Your task to perform on an android device: Empty the shopping cart on target. Search for asus rog on target, select the first entry, and add it to the cart. Image 0: 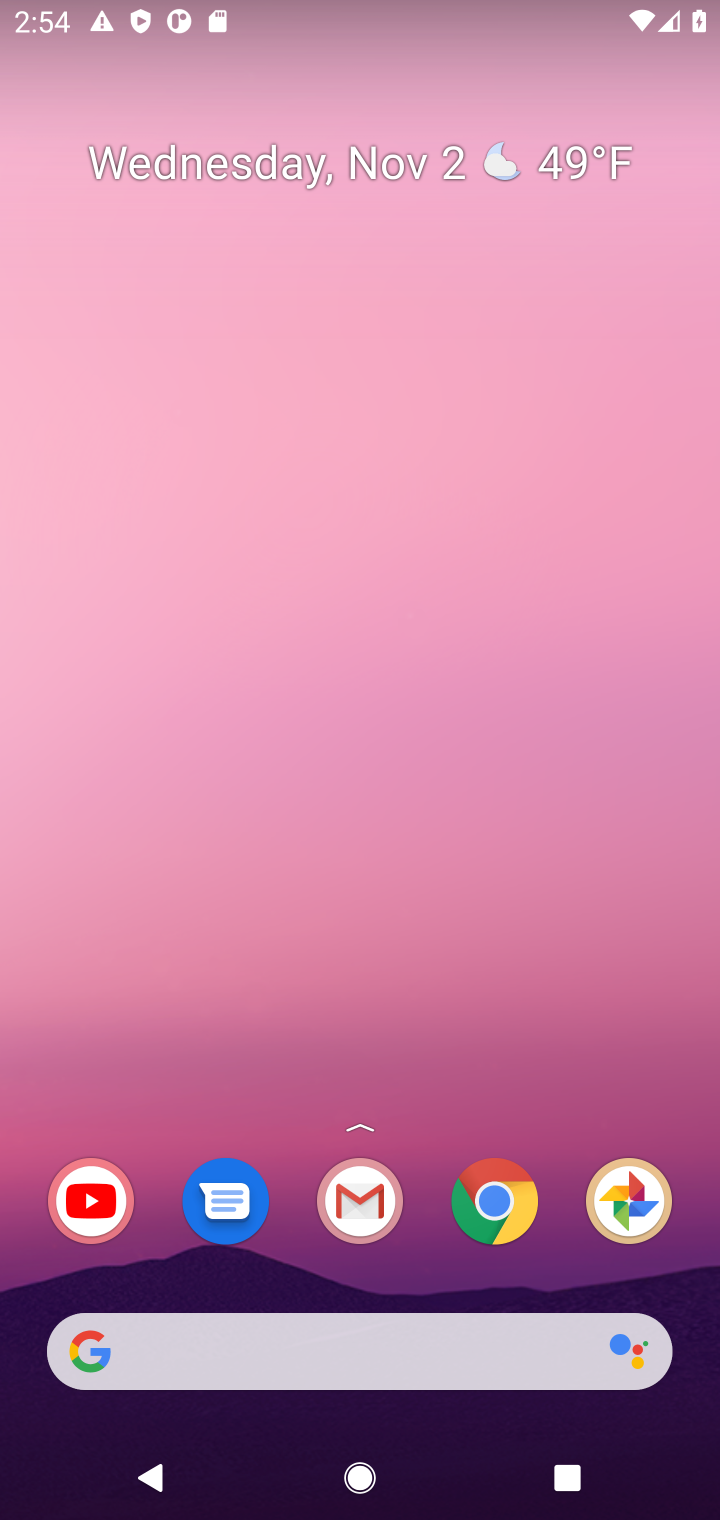
Step 0: press home button
Your task to perform on an android device: Empty the shopping cart on target. Search for asus rog on target, select the first entry, and add it to the cart. Image 1: 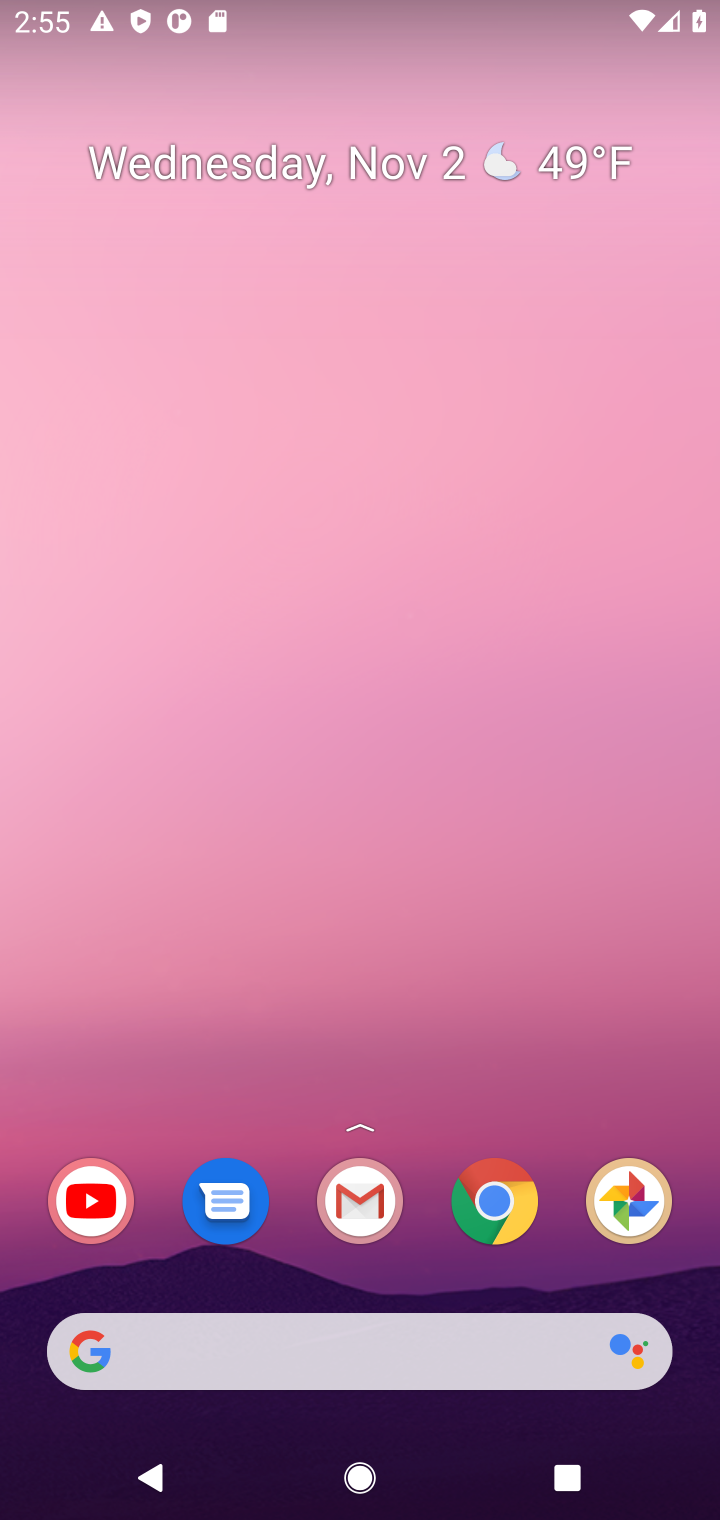
Step 1: click (488, 1207)
Your task to perform on an android device: Empty the shopping cart on target. Search for asus rog on target, select the first entry, and add it to the cart. Image 2: 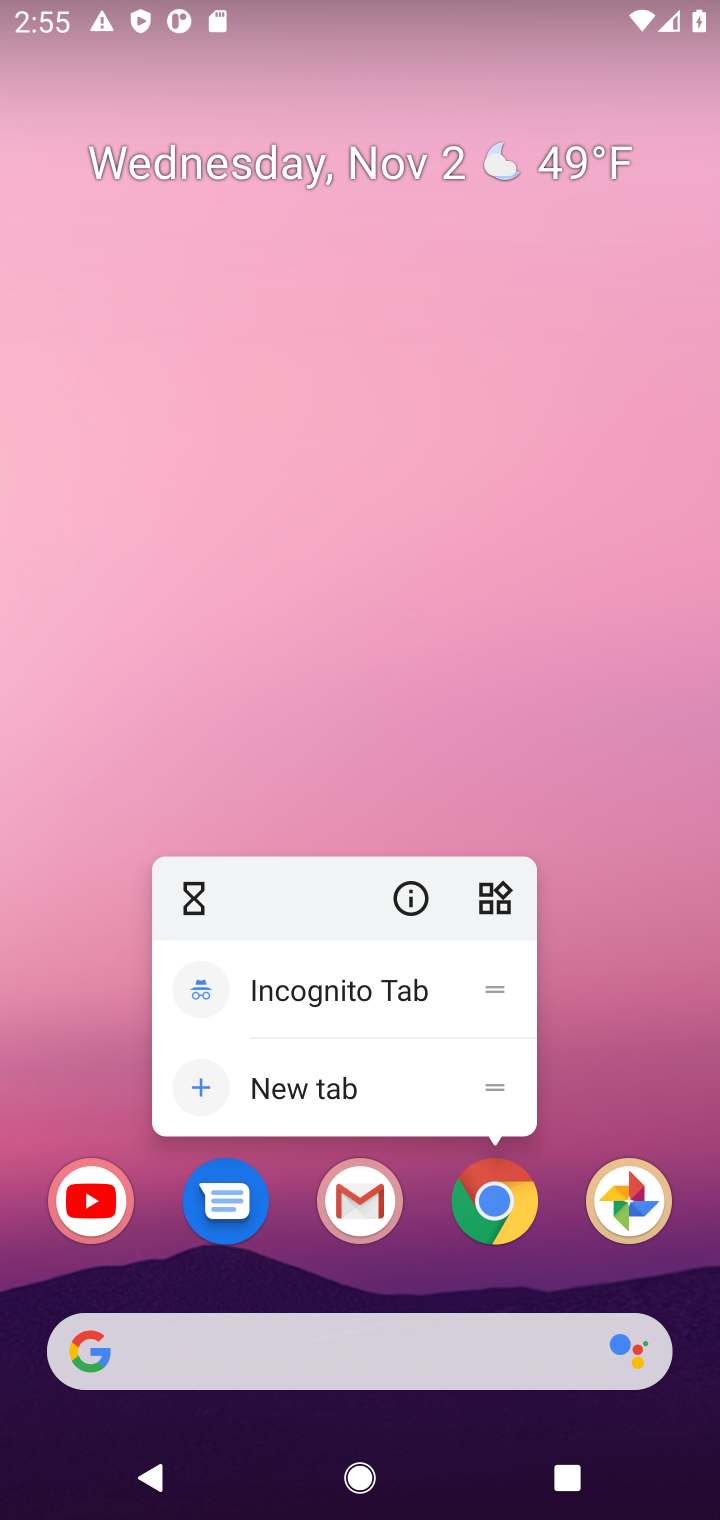
Step 2: click (490, 1200)
Your task to perform on an android device: Empty the shopping cart on target. Search for asus rog on target, select the first entry, and add it to the cart. Image 3: 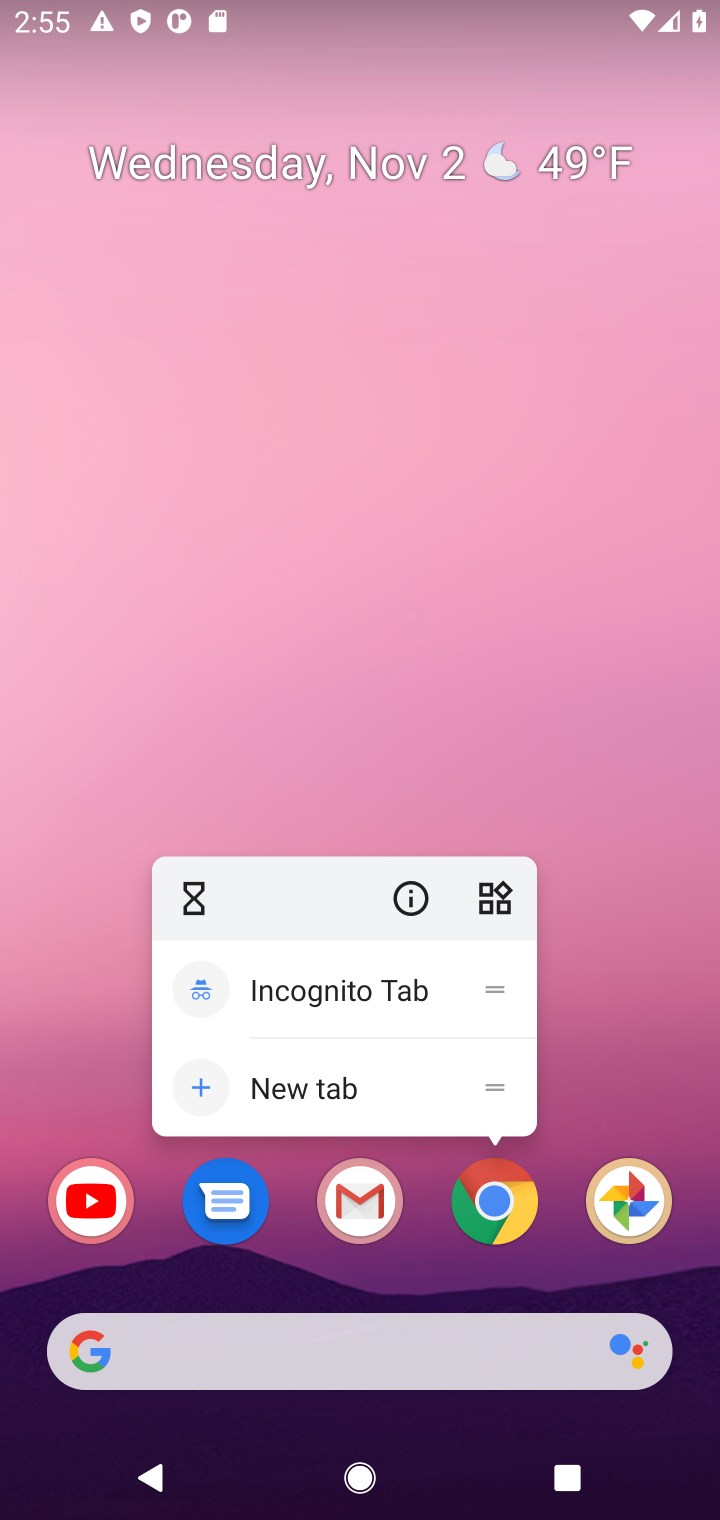
Step 3: click (496, 1212)
Your task to perform on an android device: Empty the shopping cart on target. Search for asus rog on target, select the first entry, and add it to the cart. Image 4: 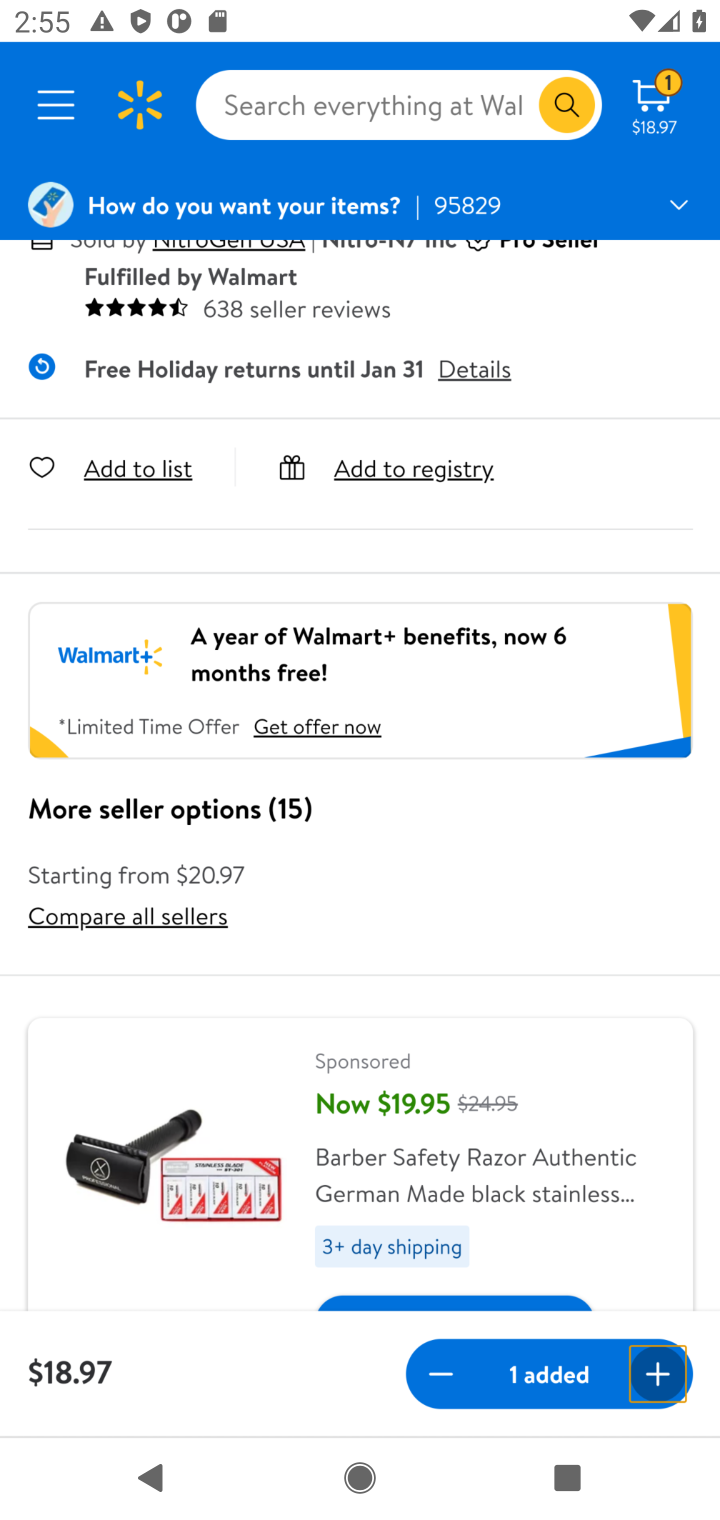
Step 4: click (498, 1213)
Your task to perform on an android device: Empty the shopping cart on target. Search for asus rog on target, select the first entry, and add it to the cart. Image 5: 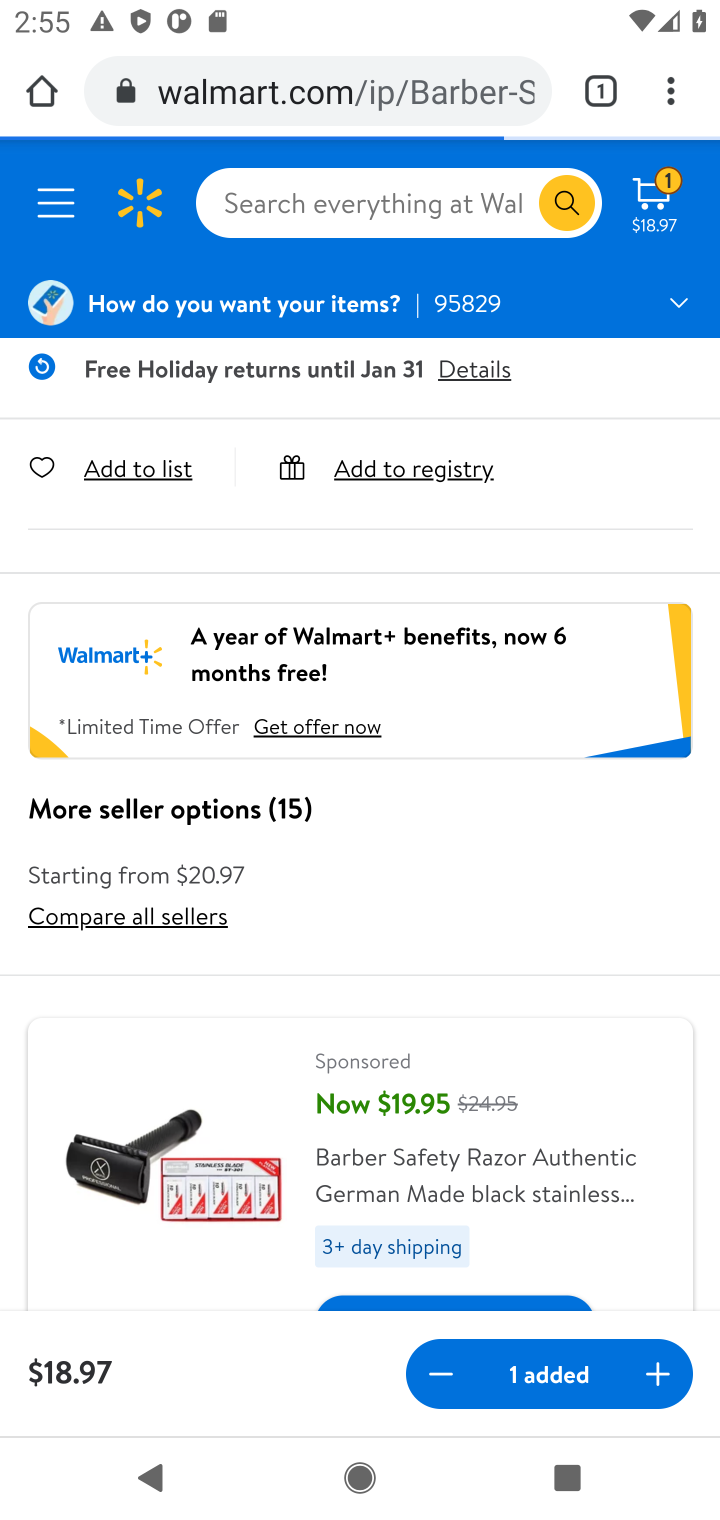
Step 5: click (365, 105)
Your task to perform on an android device: Empty the shopping cart on target. Search for asus rog on target, select the first entry, and add it to the cart. Image 6: 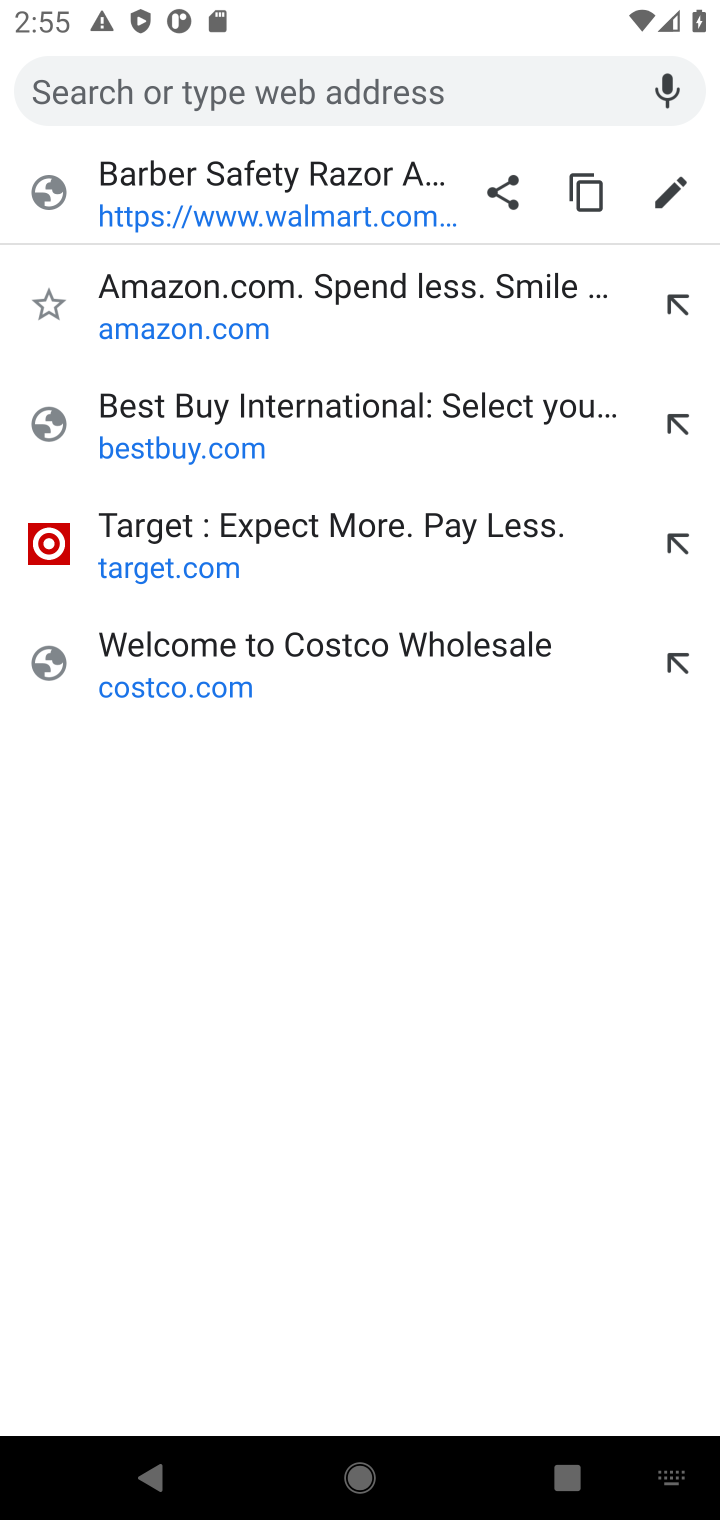
Step 6: type "target"
Your task to perform on an android device: Empty the shopping cart on target. Search for asus rog on target, select the first entry, and add it to the cart. Image 7: 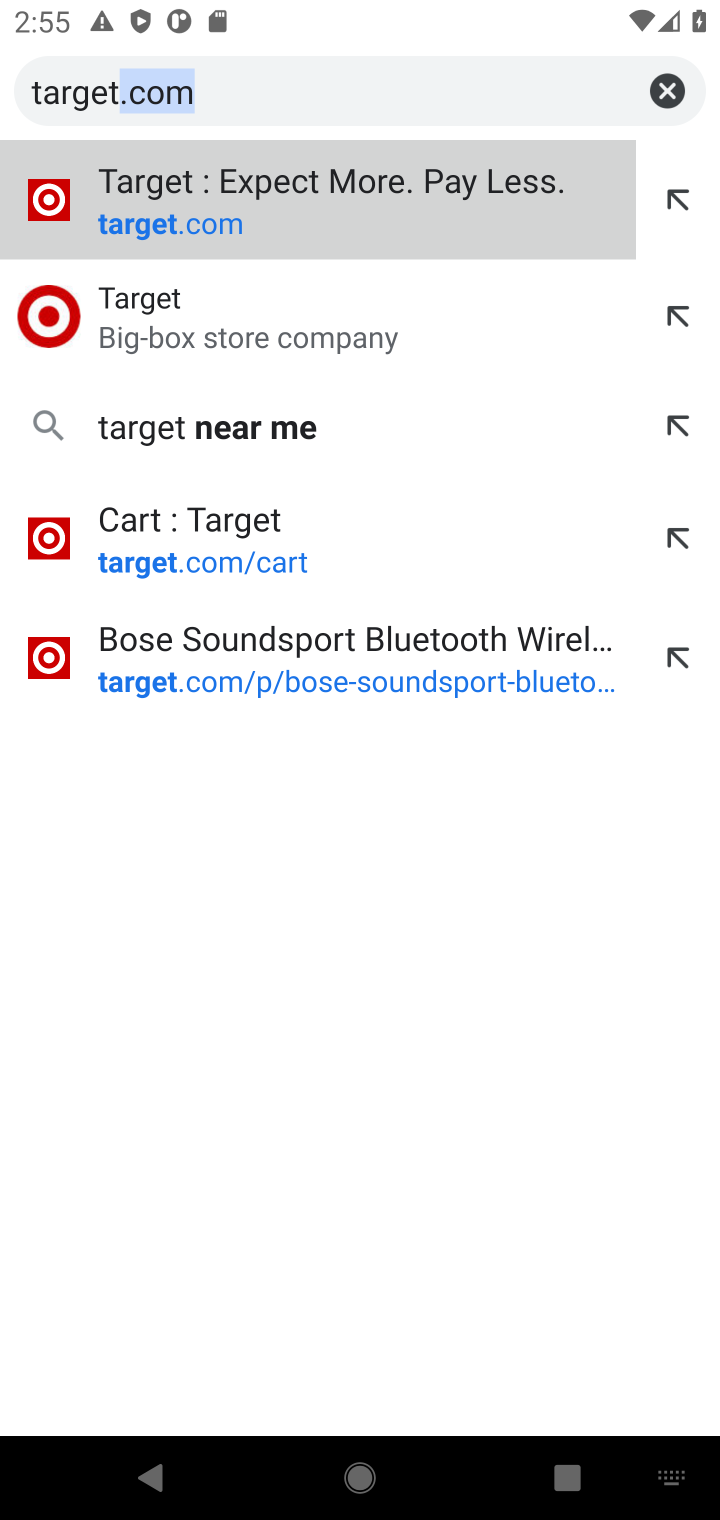
Step 7: press enter
Your task to perform on an android device: Empty the shopping cart on target. Search for asus rog on target, select the first entry, and add it to the cart. Image 8: 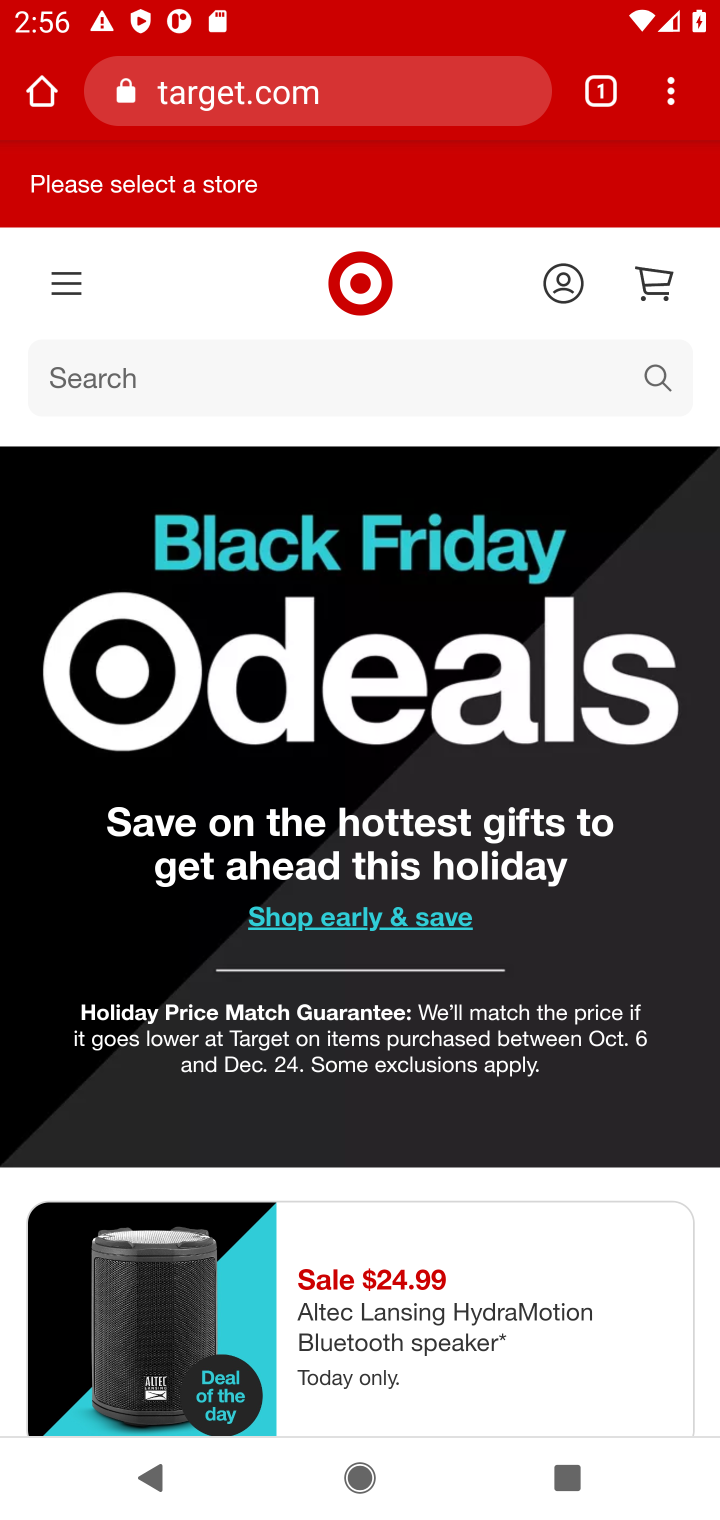
Step 8: click (309, 384)
Your task to perform on an android device: Empty the shopping cart on target. Search for asus rog on target, select the first entry, and add it to the cart. Image 9: 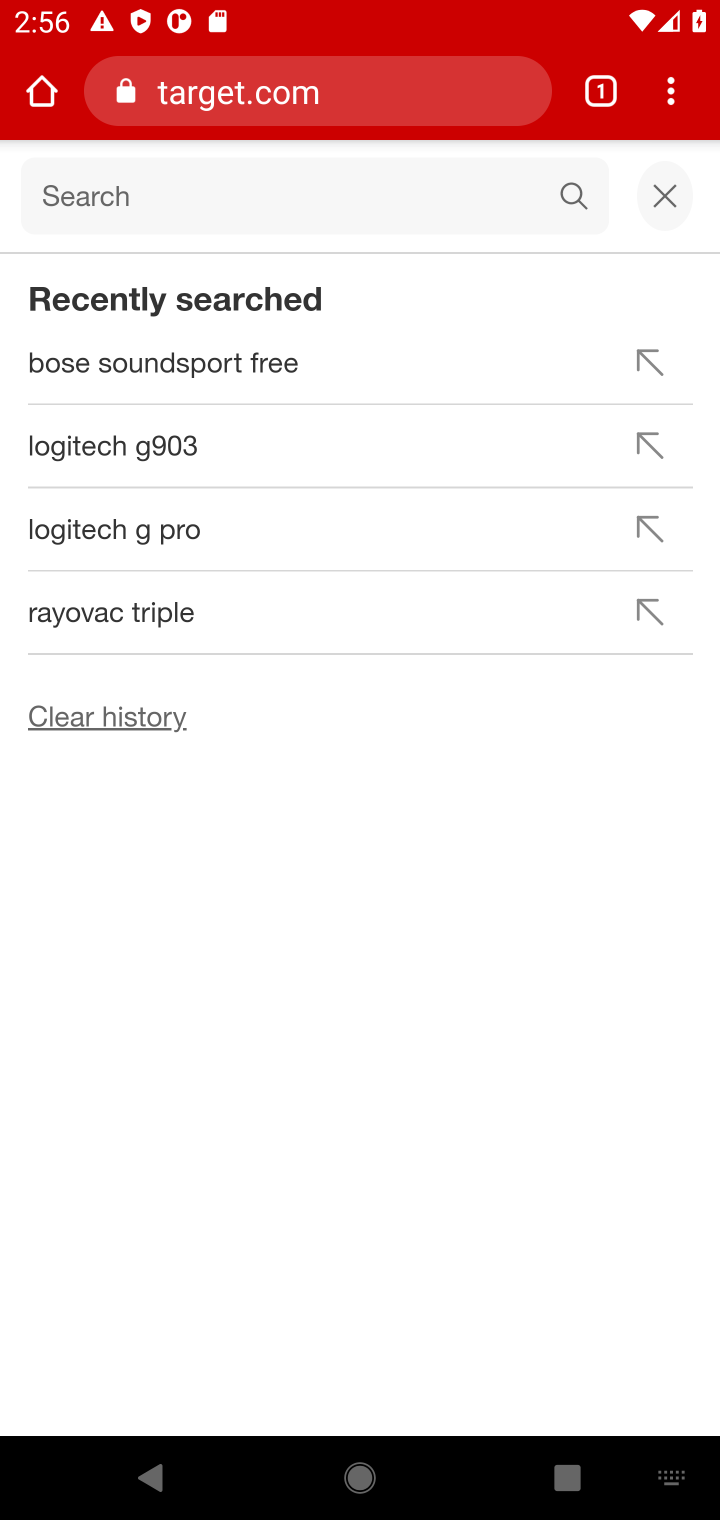
Step 9: type "asus rog"
Your task to perform on an android device: Empty the shopping cart on target. Search for asus rog on target, select the first entry, and add it to the cart. Image 10: 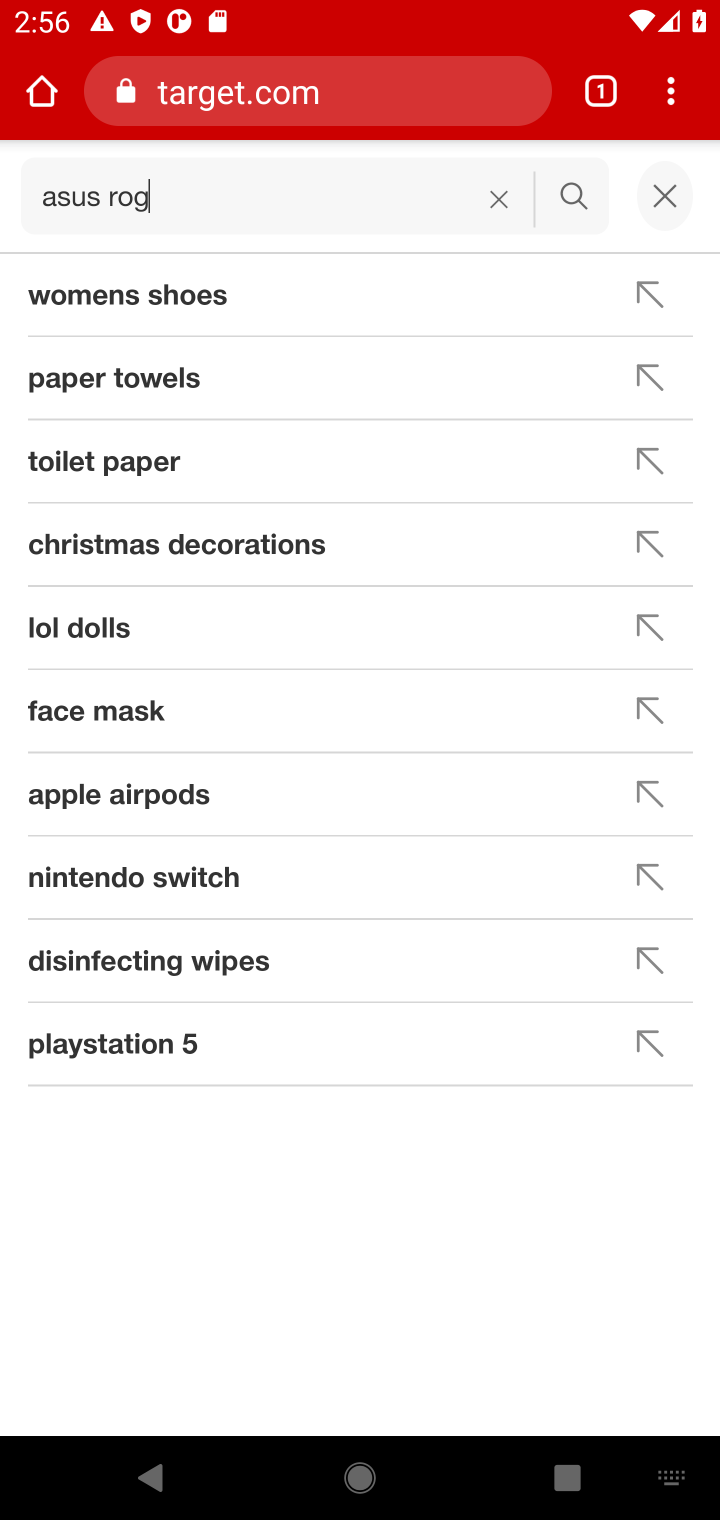
Step 10: press enter
Your task to perform on an android device: Empty the shopping cart on target. Search for asus rog on target, select the first entry, and add it to the cart. Image 11: 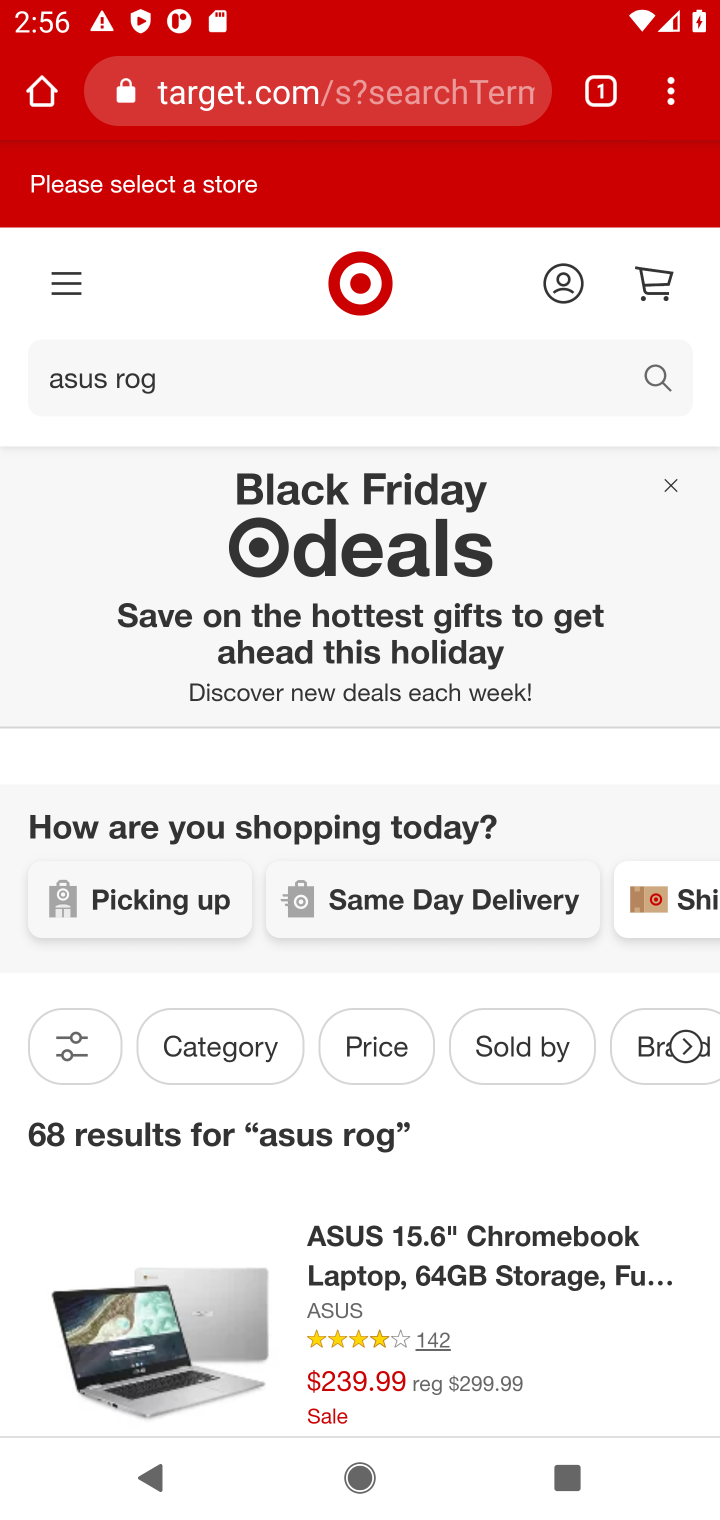
Step 11: task complete